Your task to perform on an android device: toggle location history Image 0: 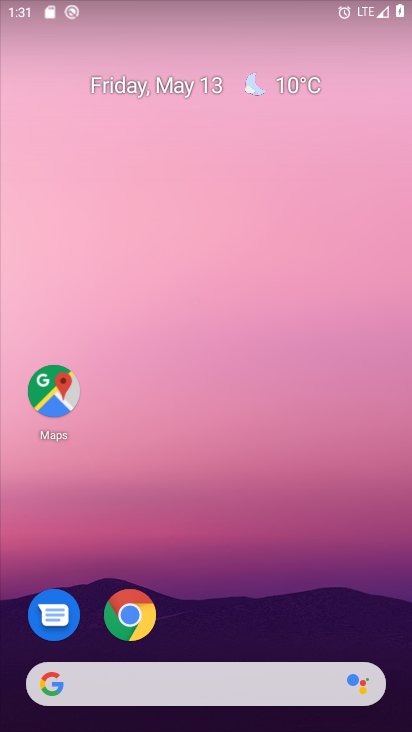
Step 0: drag from (307, 499) to (334, 41)
Your task to perform on an android device: toggle location history Image 1: 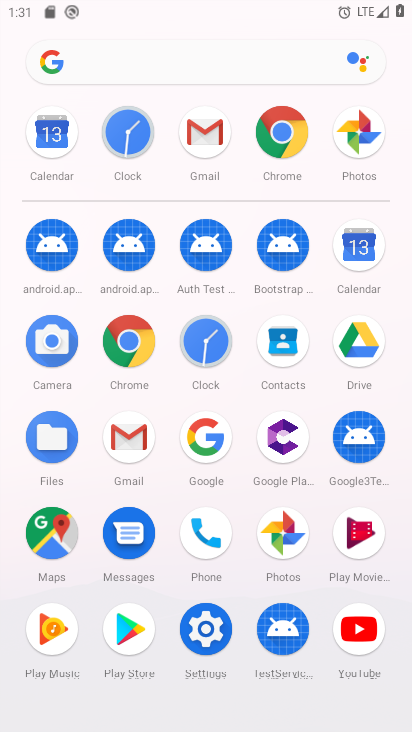
Step 1: click (216, 621)
Your task to perform on an android device: toggle location history Image 2: 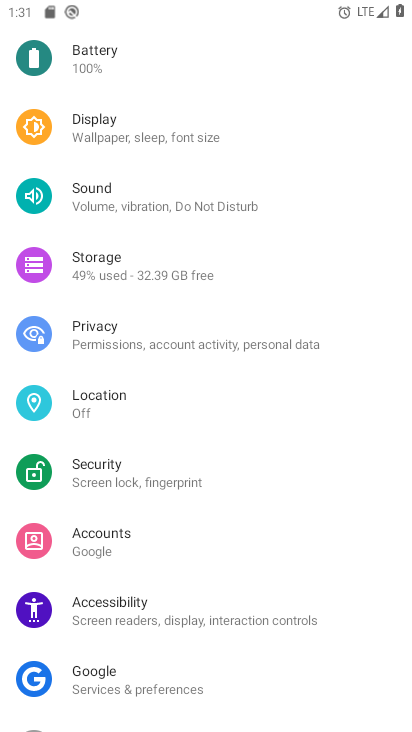
Step 2: click (187, 411)
Your task to perform on an android device: toggle location history Image 3: 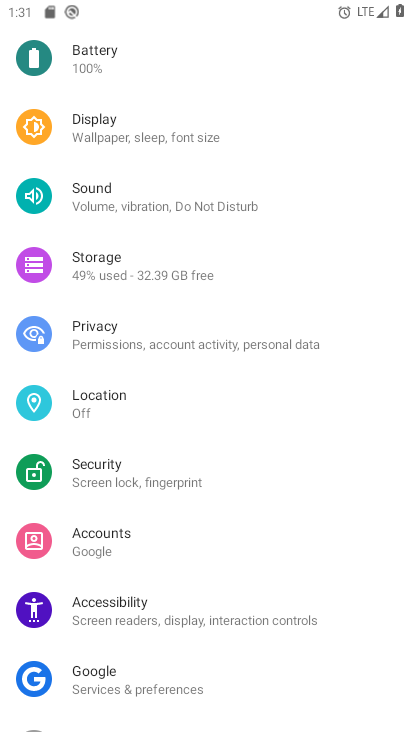
Step 3: click (106, 404)
Your task to perform on an android device: toggle location history Image 4: 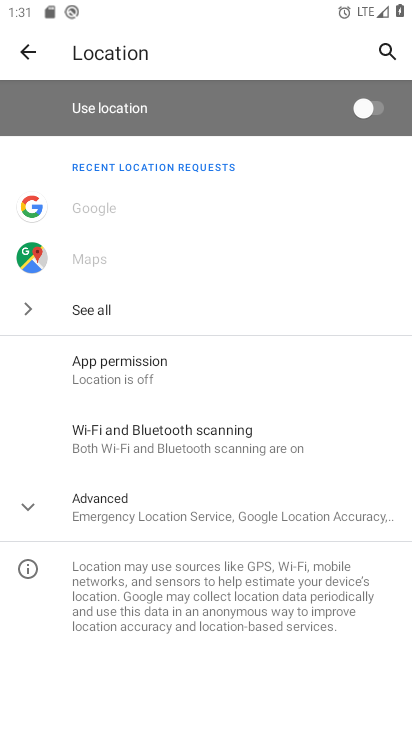
Step 4: click (34, 508)
Your task to perform on an android device: toggle location history Image 5: 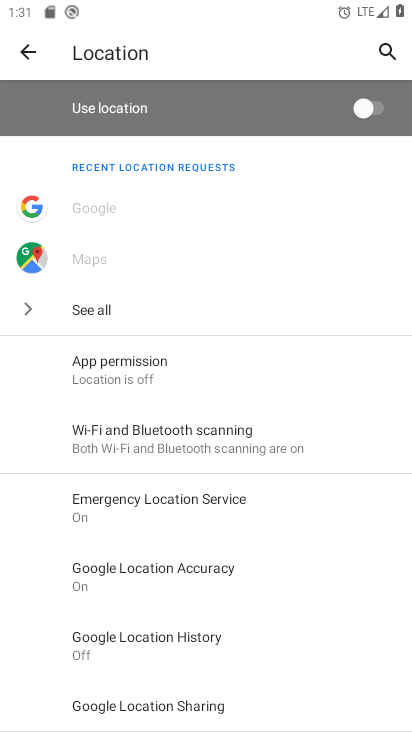
Step 5: click (205, 652)
Your task to perform on an android device: toggle location history Image 6: 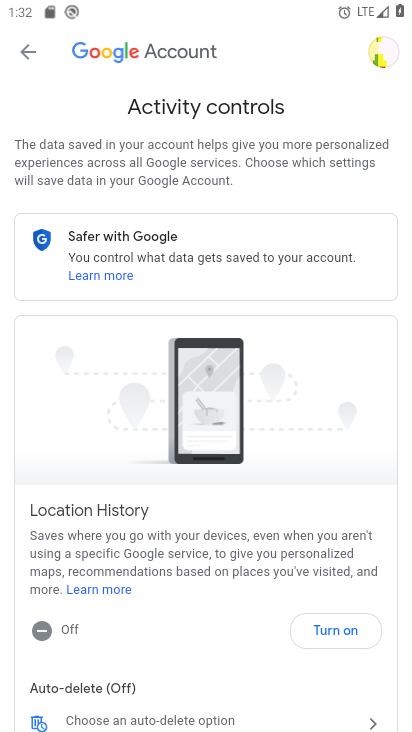
Step 6: click (338, 627)
Your task to perform on an android device: toggle location history Image 7: 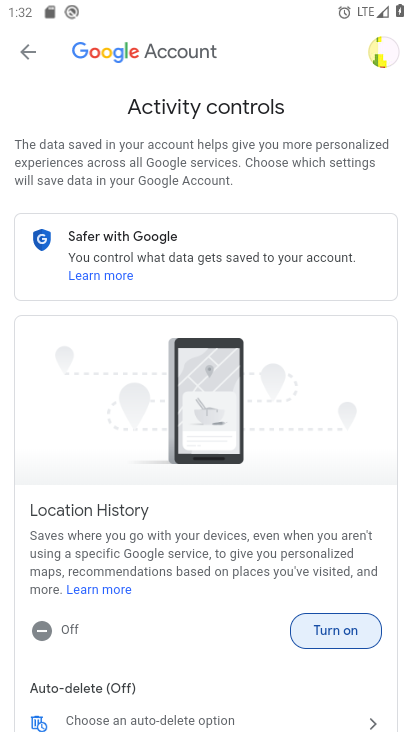
Step 7: click (338, 627)
Your task to perform on an android device: toggle location history Image 8: 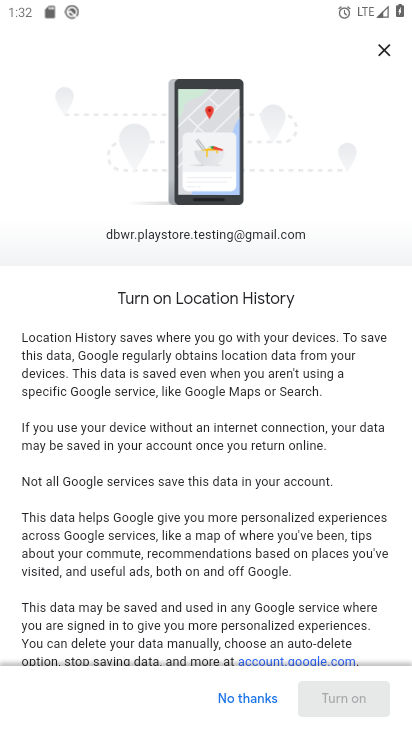
Step 8: drag from (264, 562) to (316, 130)
Your task to perform on an android device: toggle location history Image 9: 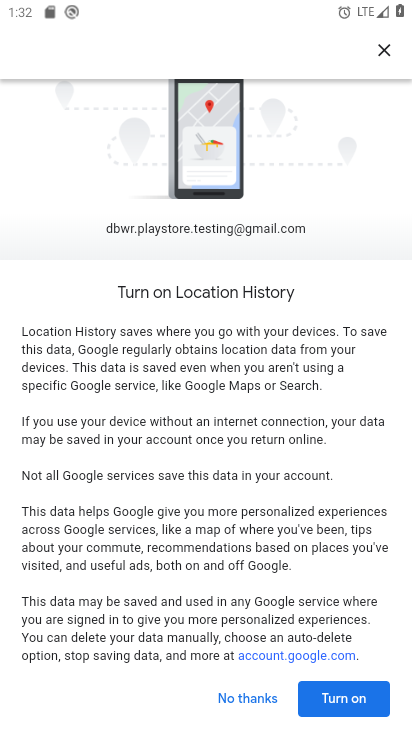
Step 9: click (366, 707)
Your task to perform on an android device: toggle location history Image 10: 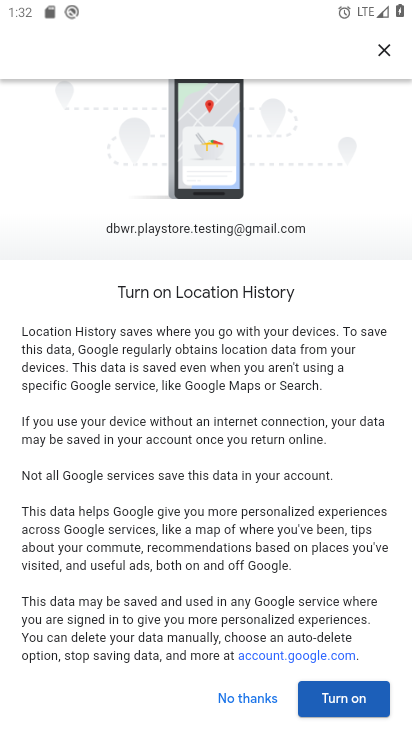
Step 10: click (366, 705)
Your task to perform on an android device: toggle location history Image 11: 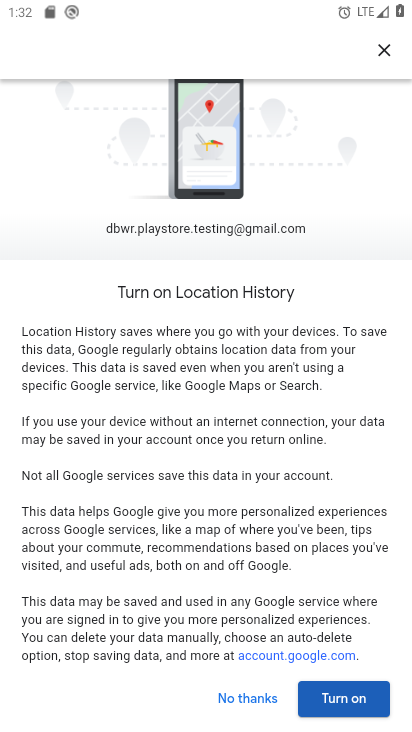
Step 11: click (366, 705)
Your task to perform on an android device: toggle location history Image 12: 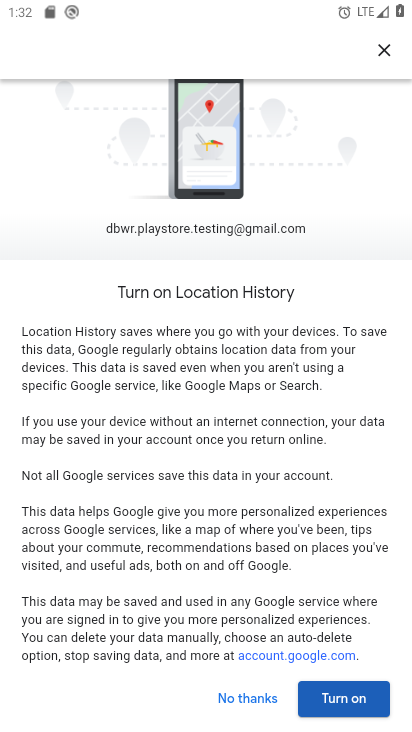
Step 12: click (355, 699)
Your task to perform on an android device: toggle location history Image 13: 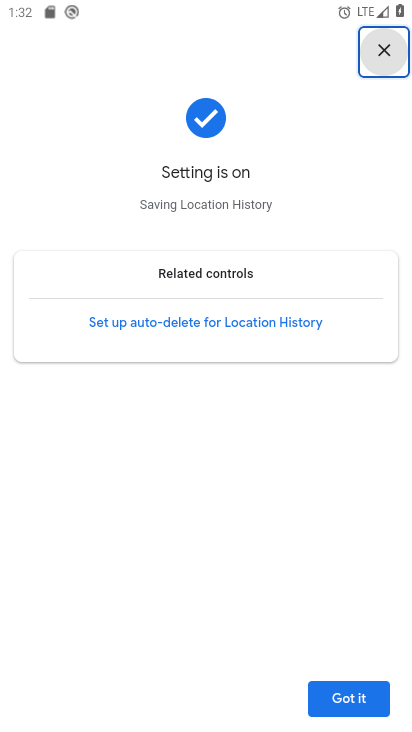
Step 13: click (355, 696)
Your task to perform on an android device: toggle location history Image 14: 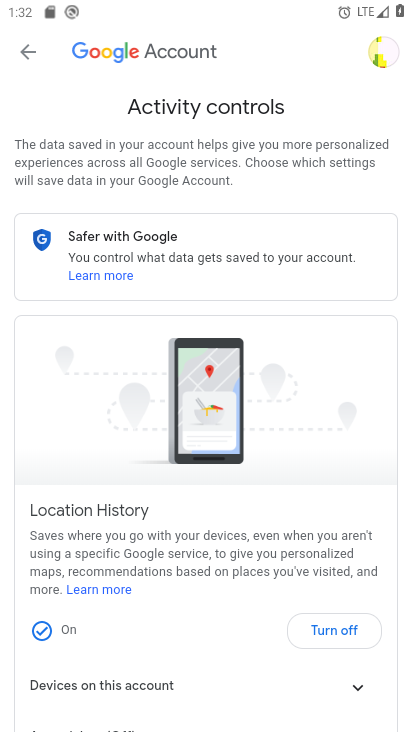
Step 14: task complete